Your task to perform on an android device: search for starred emails in the gmail app Image 0: 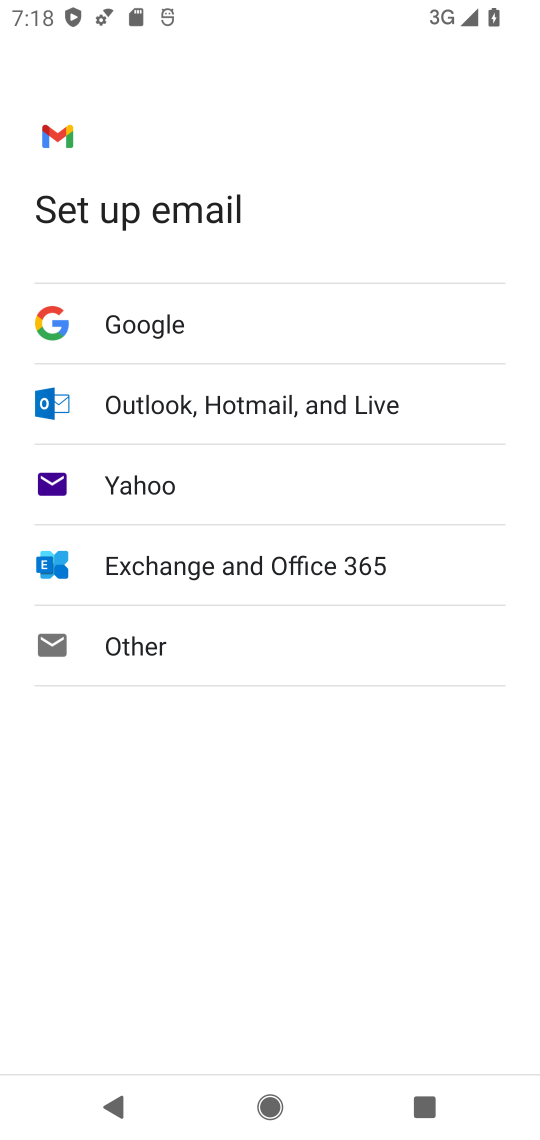
Step 0: press home button
Your task to perform on an android device: search for starred emails in the gmail app Image 1: 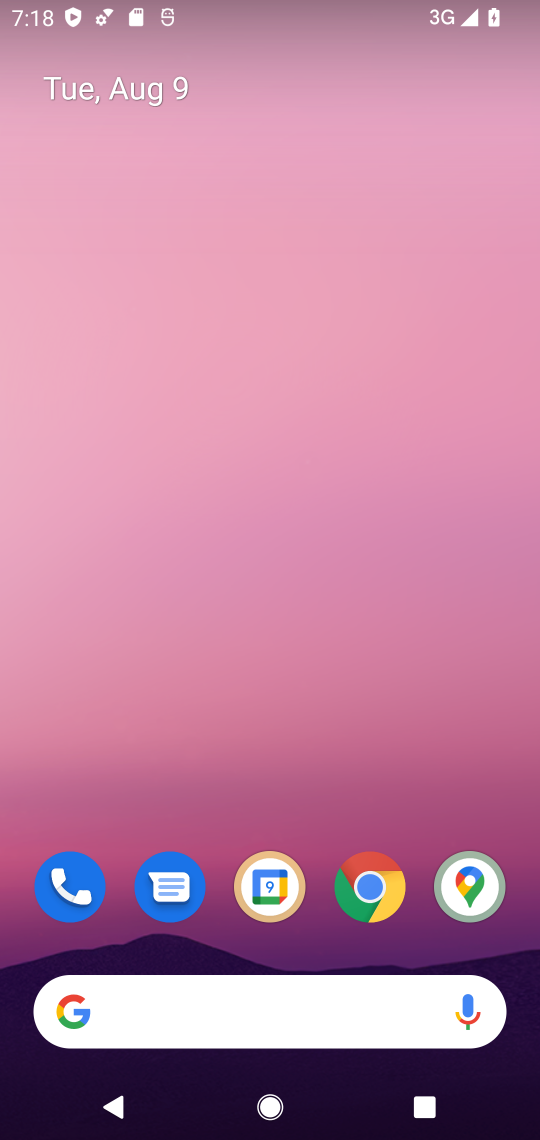
Step 1: drag from (323, 686) to (385, 11)
Your task to perform on an android device: search for starred emails in the gmail app Image 2: 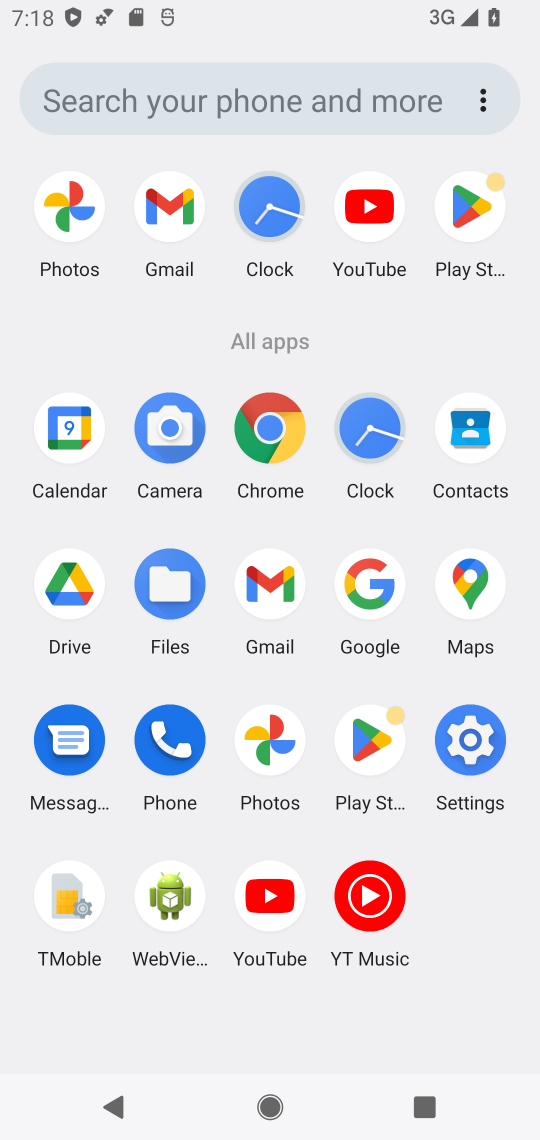
Step 2: click (170, 200)
Your task to perform on an android device: search for starred emails in the gmail app Image 3: 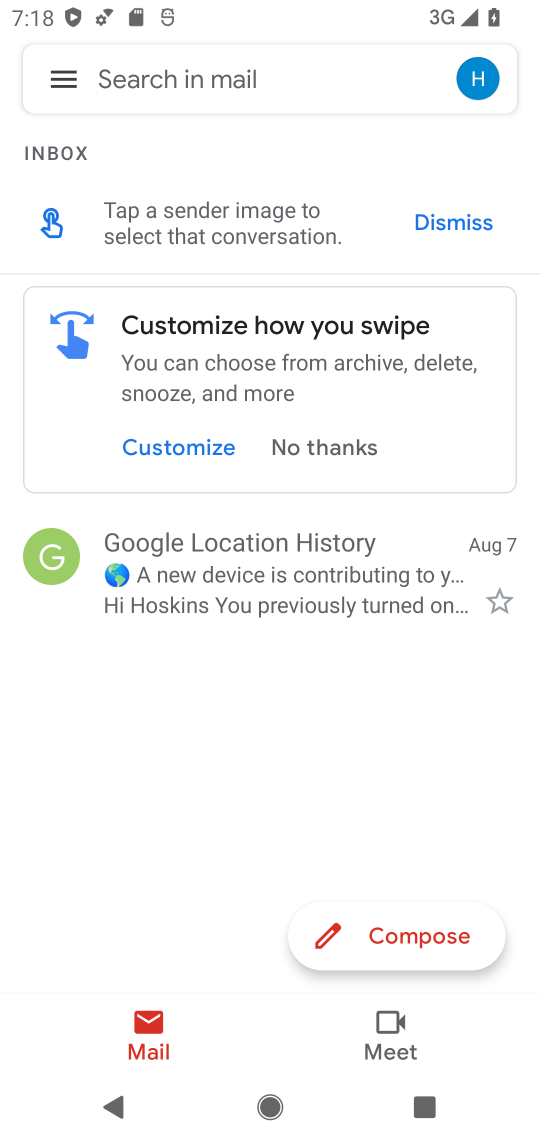
Step 3: click (68, 62)
Your task to perform on an android device: search for starred emails in the gmail app Image 4: 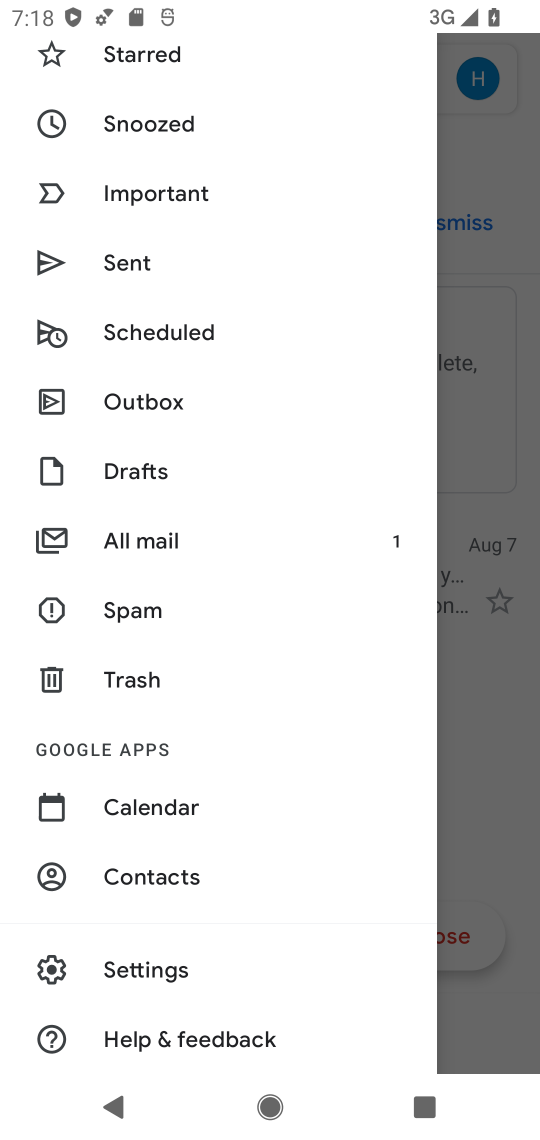
Step 4: click (106, 50)
Your task to perform on an android device: search for starred emails in the gmail app Image 5: 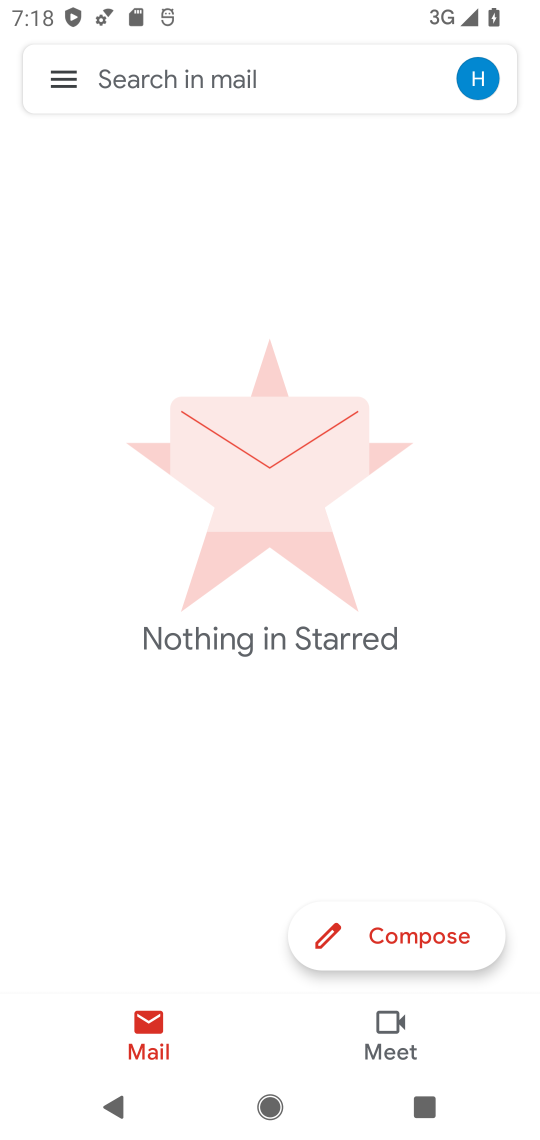
Step 5: task complete